Your task to perform on an android device: turn off javascript in the chrome app Image 0: 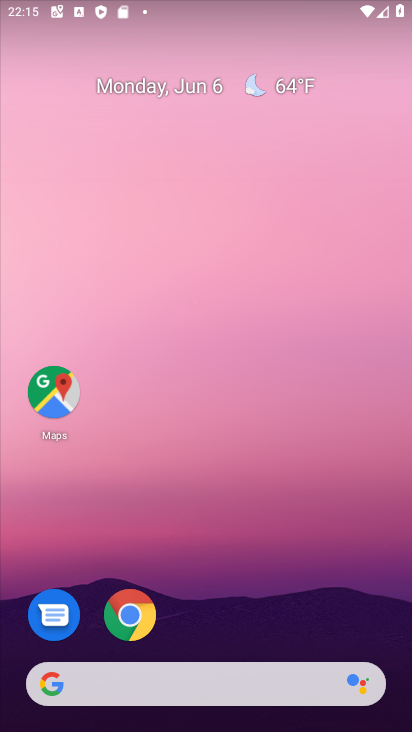
Step 0: click (120, 602)
Your task to perform on an android device: turn off javascript in the chrome app Image 1: 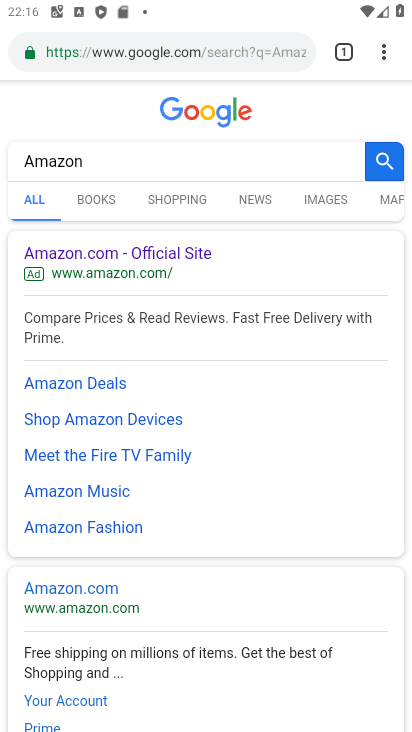
Step 1: click (380, 50)
Your task to perform on an android device: turn off javascript in the chrome app Image 2: 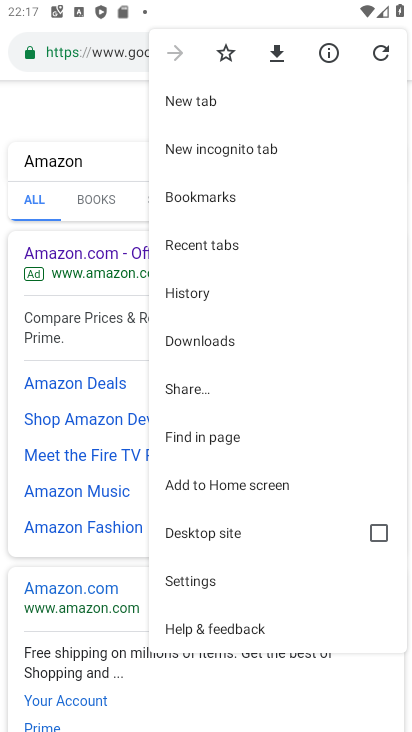
Step 2: click (188, 589)
Your task to perform on an android device: turn off javascript in the chrome app Image 3: 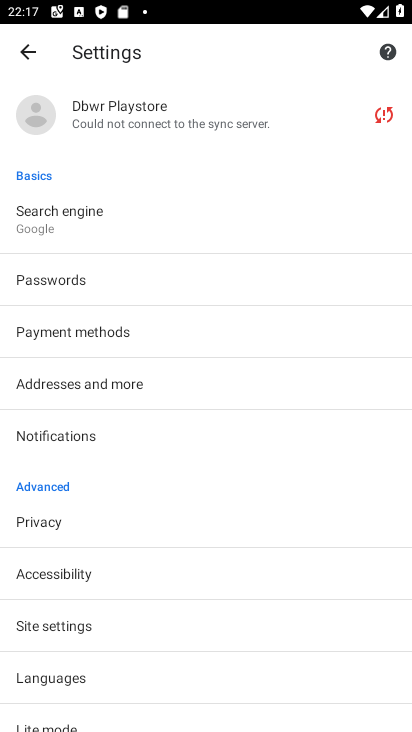
Step 3: drag from (119, 681) to (124, 386)
Your task to perform on an android device: turn off javascript in the chrome app Image 4: 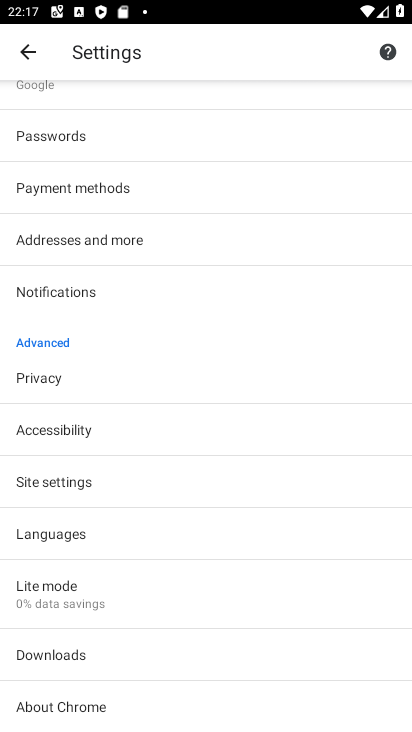
Step 4: click (65, 469)
Your task to perform on an android device: turn off javascript in the chrome app Image 5: 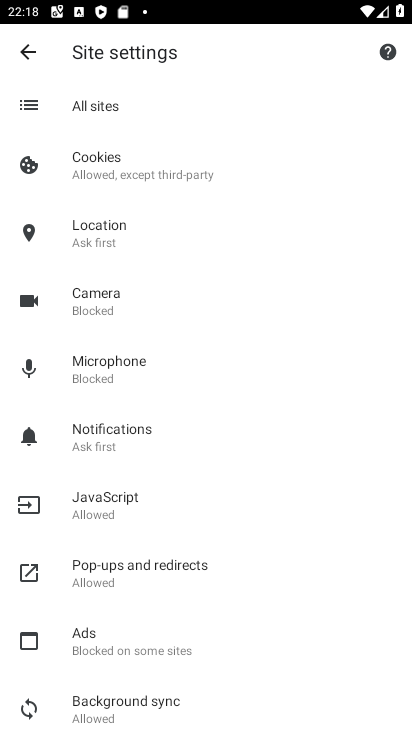
Step 5: click (109, 506)
Your task to perform on an android device: turn off javascript in the chrome app Image 6: 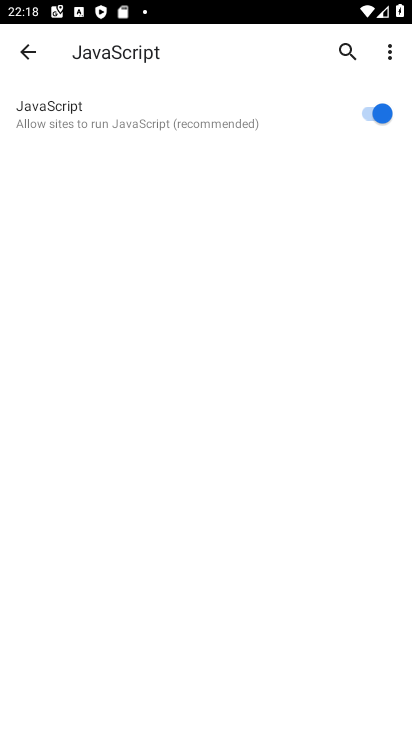
Step 6: click (366, 116)
Your task to perform on an android device: turn off javascript in the chrome app Image 7: 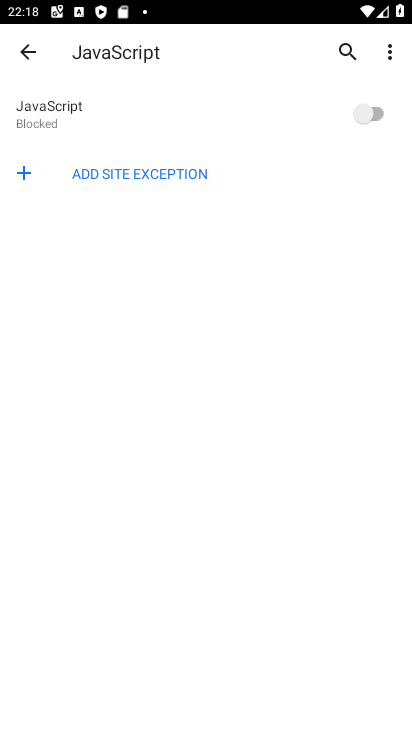
Step 7: task complete